Your task to perform on an android device: turn on sleep mode Image 0: 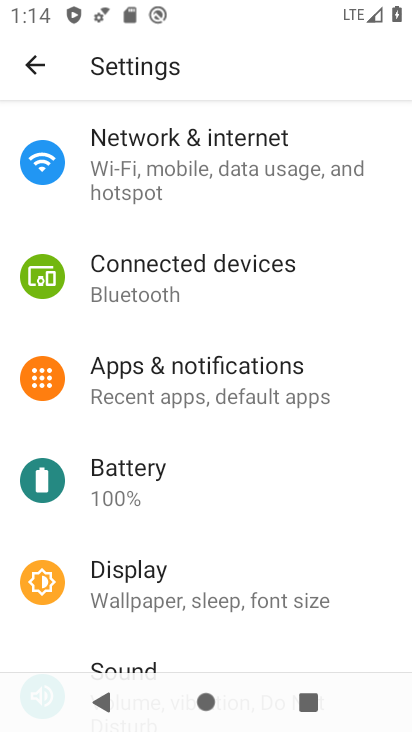
Step 0: drag from (234, 400) to (210, 700)
Your task to perform on an android device: turn on sleep mode Image 1: 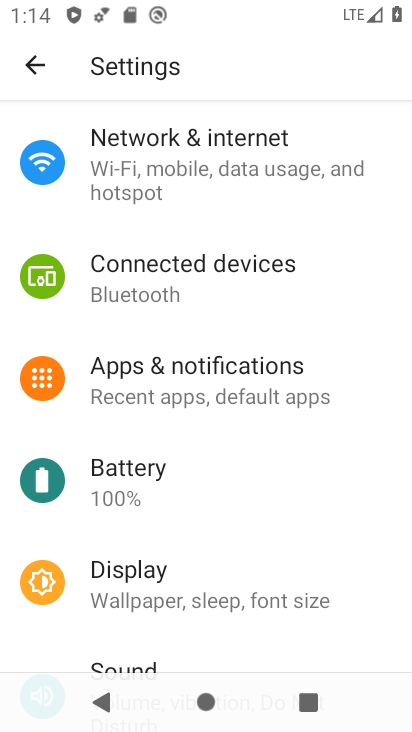
Step 1: click (210, 589)
Your task to perform on an android device: turn on sleep mode Image 2: 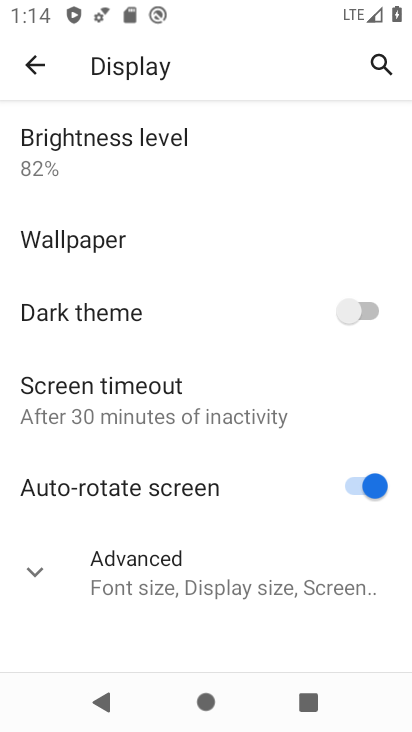
Step 2: click (118, 404)
Your task to perform on an android device: turn on sleep mode Image 3: 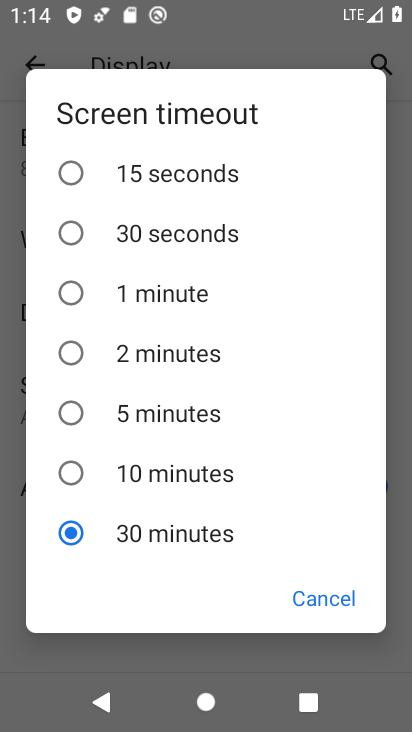
Step 3: task complete